Your task to perform on an android device: What's the weather today? Image 0: 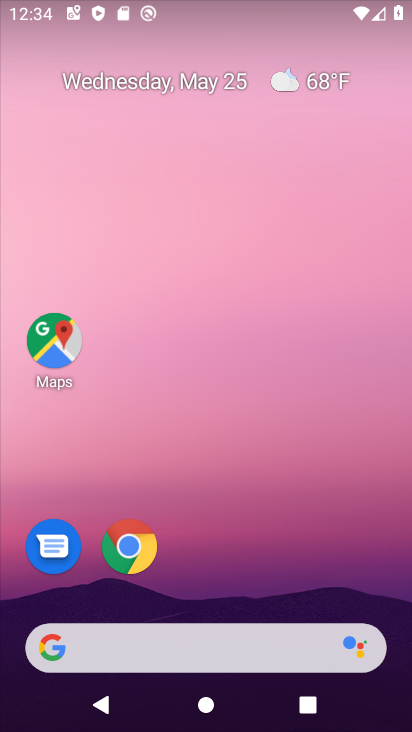
Step 0: drag from (253, 556) to (219, 306)
Your task to perform on an android device: What's the weather today? Image 1: 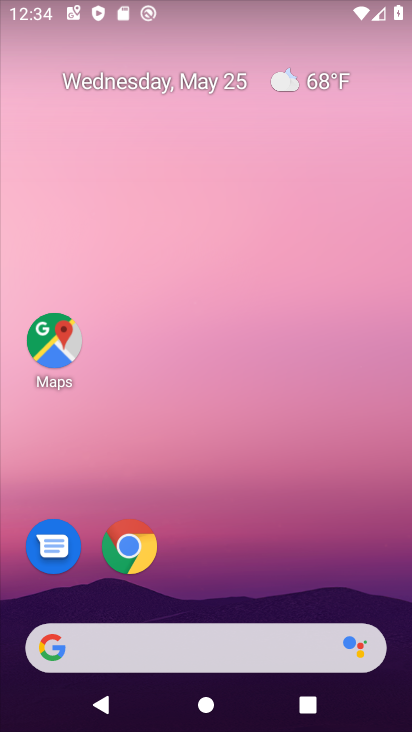
Step 1: click (245, 644)
Your task to perform on an android device: What's the weather today? Image 2: 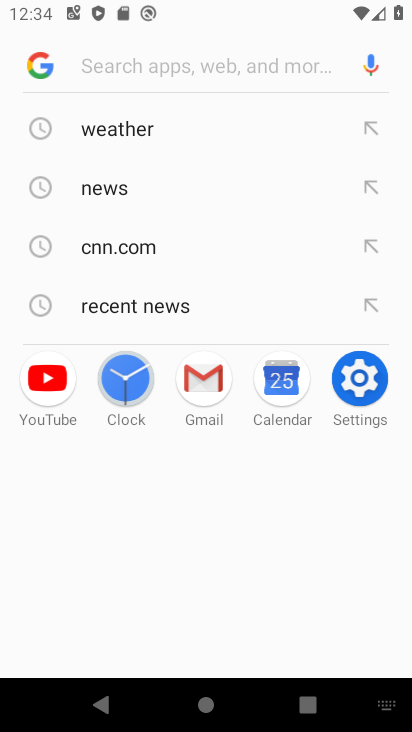
Step 2: click (117, 130)
Your task to perform on an android device: What's the weather today? Image 3: 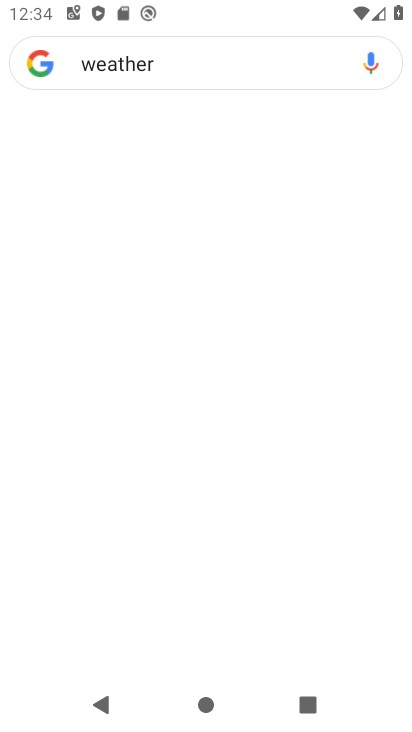
Step 3: task complete